Your task to perform on an android device: change text size in settings app Image 0: 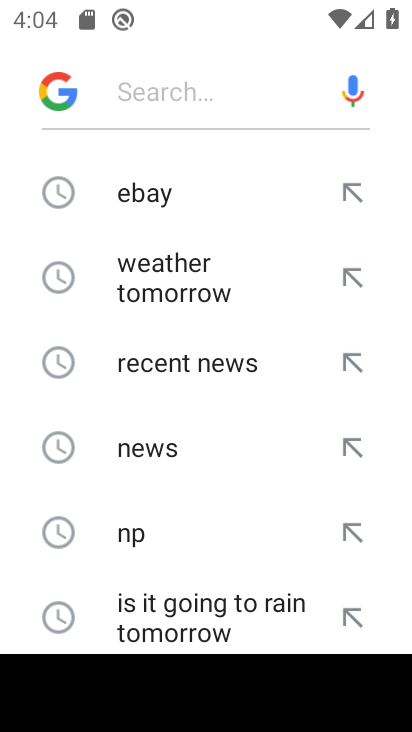
Step 0: press home button
Your task to perform on an android device: change text size in settings app Image 1: 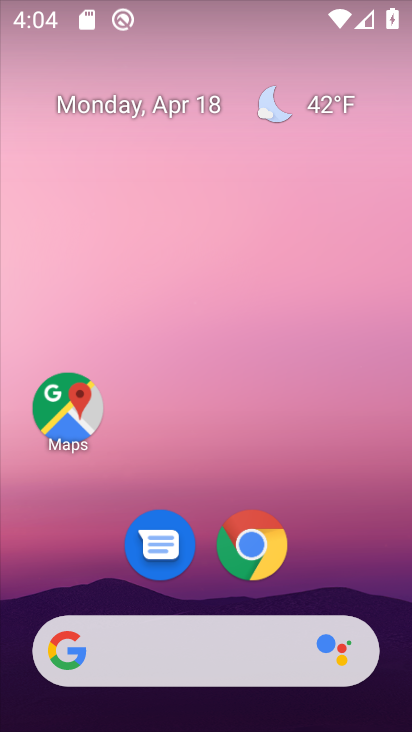
Step 1: drag from (329, 512) to (339, 83)
Your task to perform on an android device: change text size in settings app Image 2: 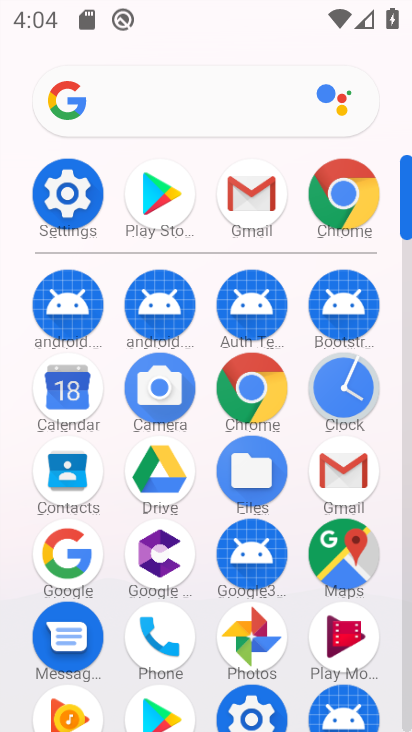
Step 2: click (62, 197)
Your task to perform on an android device: change text size in settings app Image 3: 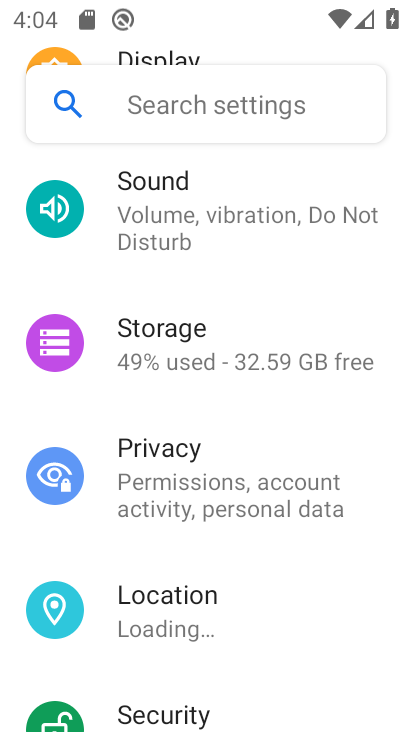
Step 3: drag from (388, 290) to (384, 474)
Your task to perform on an android device: change text size in settings app Image 4: 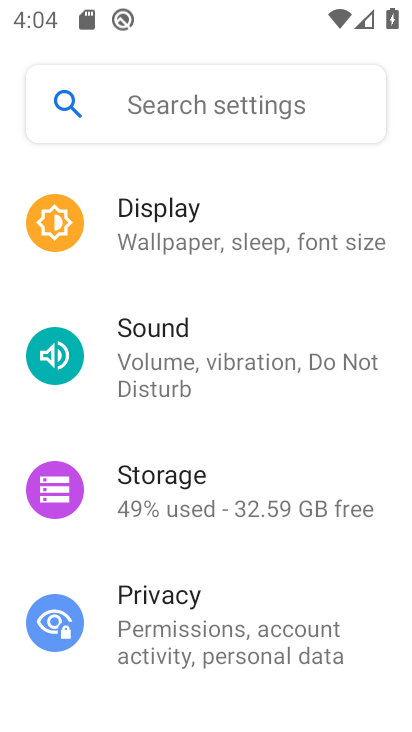
Step 4: drag from (387, 292) to (385, 452)
Your task to perform on an android device: change text size in settings app Image 5: 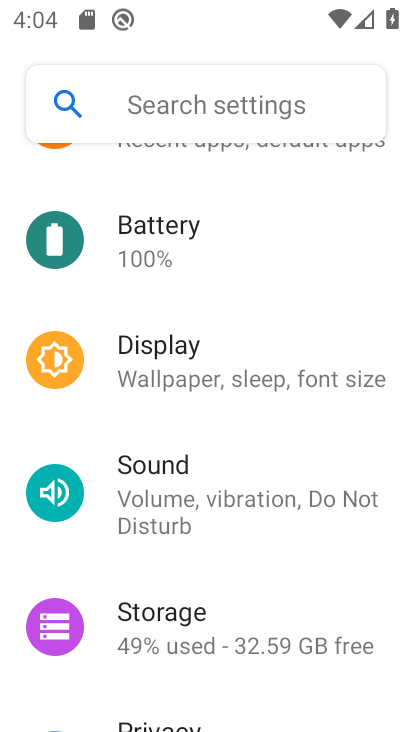
Step 5: click (327, 373)
Your task to perform on an android device: change text size in settings app Image 6: 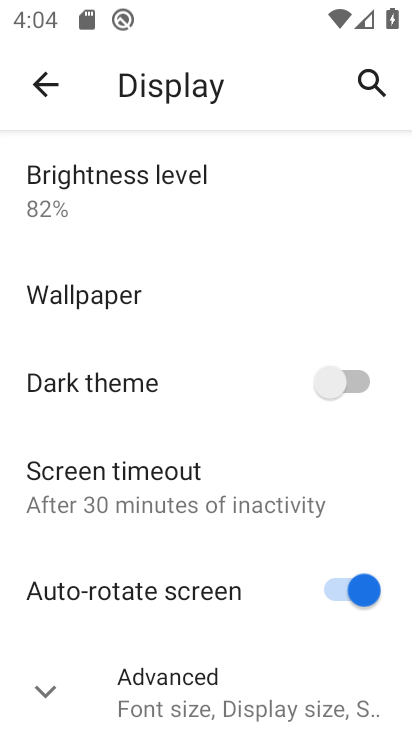
Step 6: click (200, 682)
Your task to perform on an android device: change text size in settings app Image 7: 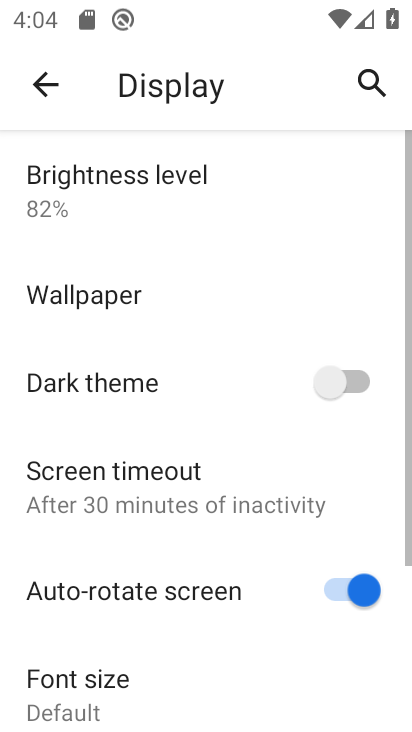
Step 7: drag from (291, 634) to (282, 449)
Your task to perform on an android device: change text size in settings app Image 8: 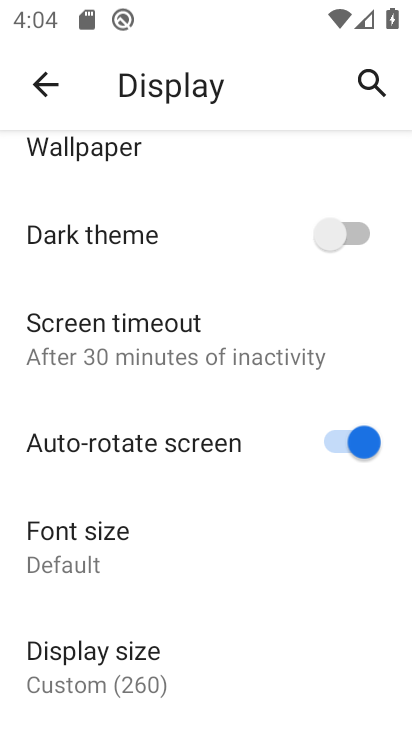
Step 8: drag from (277, 612) to (271, 433)
Your task to perform on an android device: change text size in settings app Image 9: 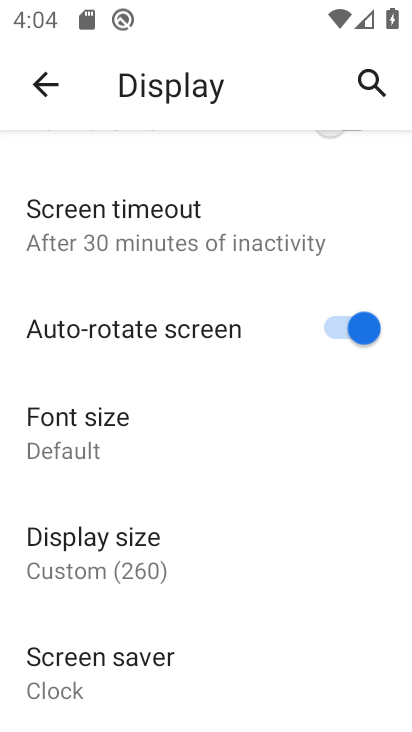
Step 9: click (77, 434)
Your task to perform on an android device: change text size in settings app Image 10: 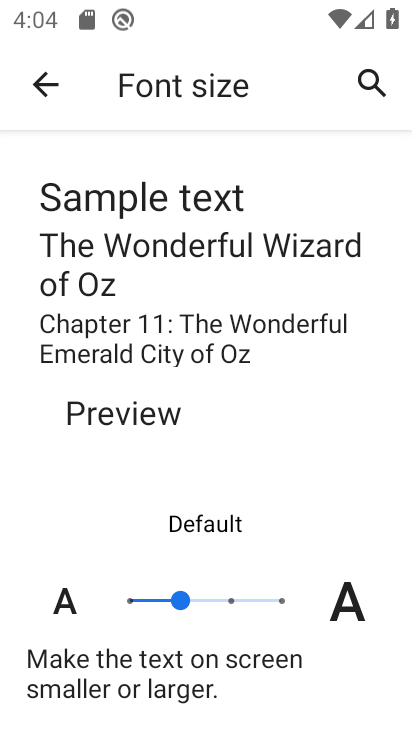
Step 10: click (130, 596)
Your task to perform on an android device: change text size in settings app Image 11: 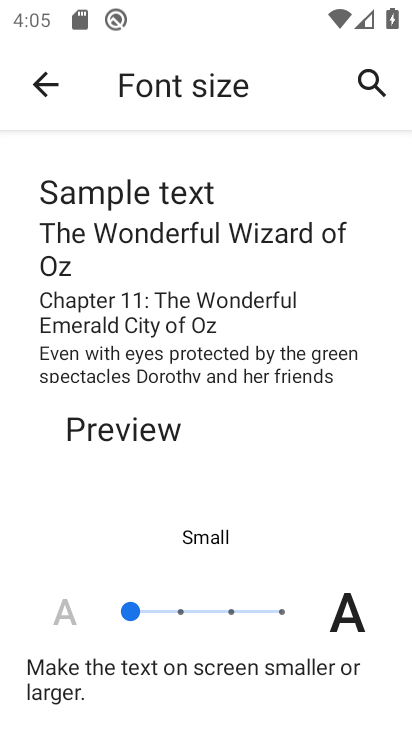
Step 11: task complete